Your task to perform on an android device: Open settings Image 0: 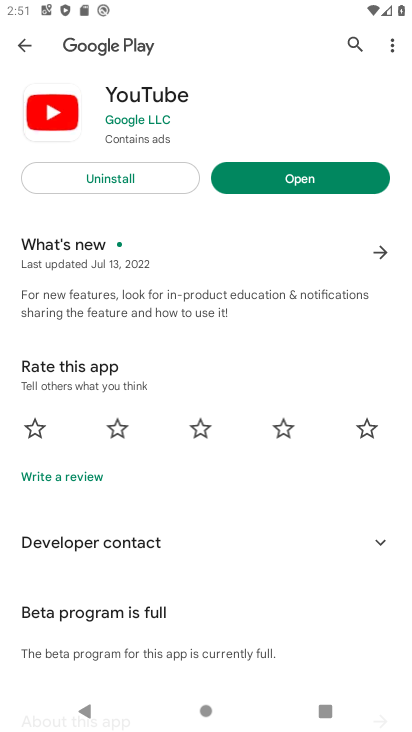
Step 0: press home button
Your task to perform on an android device: Open settings Image 1: 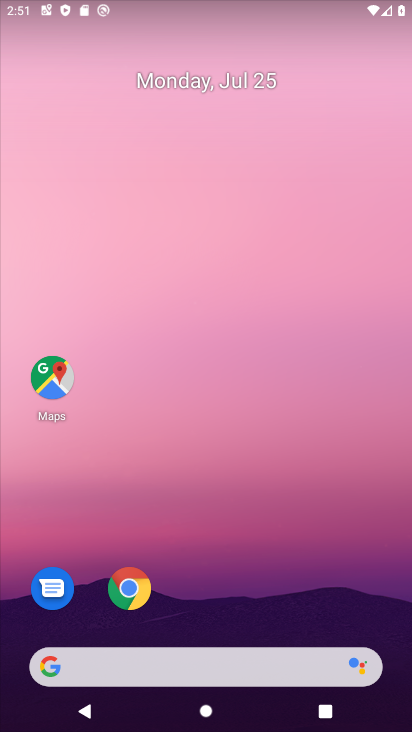
Step 1: drag from (230, 601) to (176, 75)
Your task to perform on an android device: Open settings Image 2: 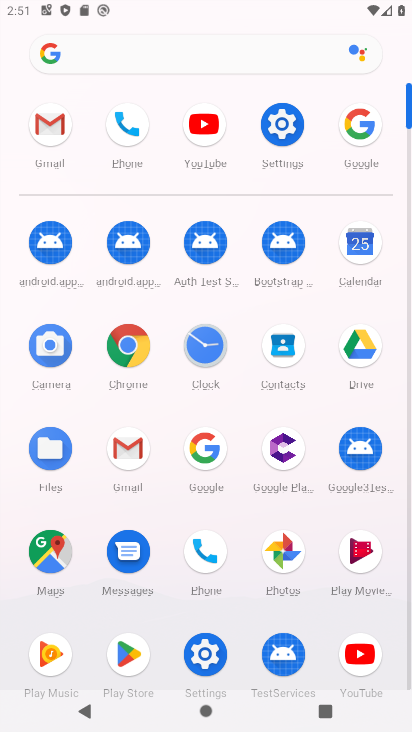
Step 2: click (271, 150)
Your task to perform on an android device: Open settings Image 3: 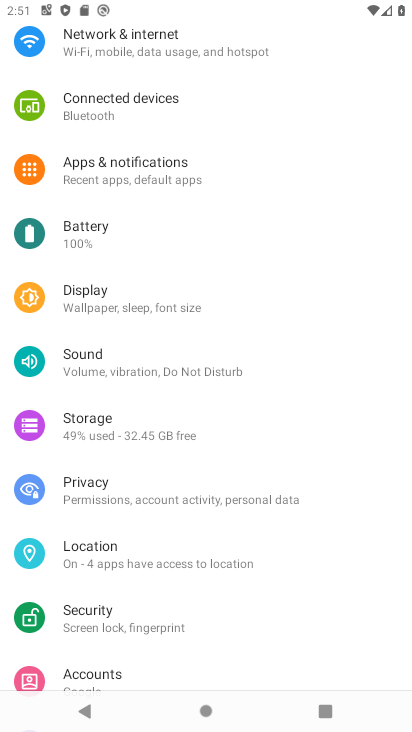
Step 3: task complete